Your task to perform on an android device: turn off sleep mode Image 0: 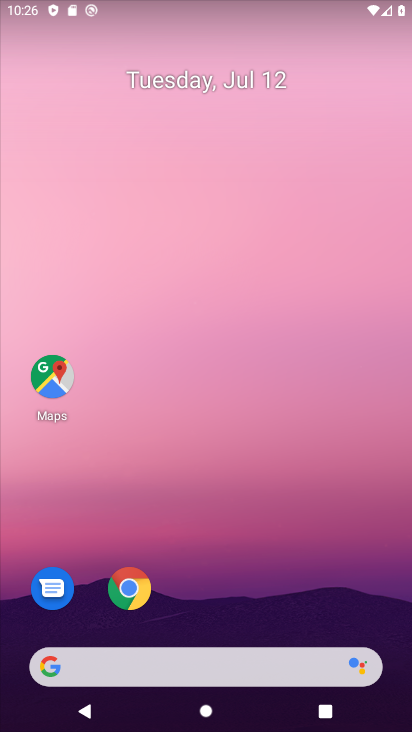
Step 0: drag from (181, 642) to (274, 33)
Your task to perform on an android device: turn off sleep mode Image 1: 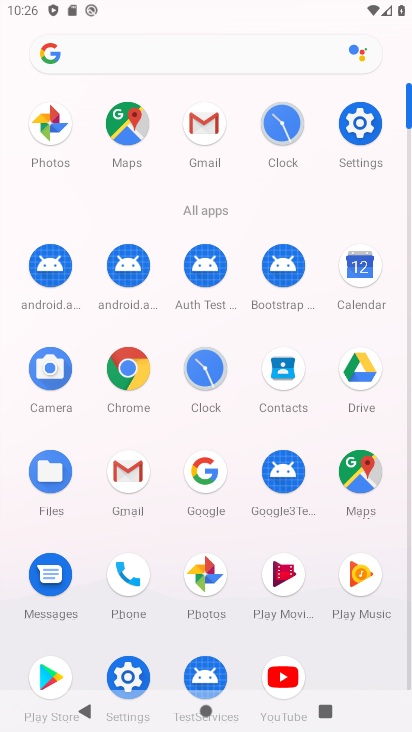
Step 1: click (120, 670)
Your task to perform on an android device: turn off sleep mode Image 2: 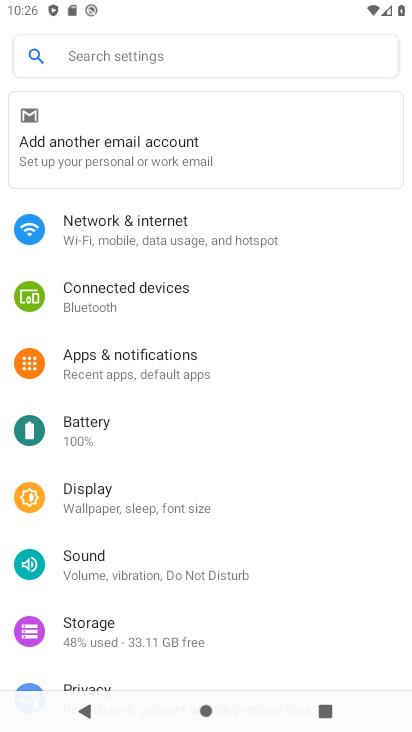
Step 2: click (131, 514)
Your task to perform on an android device: turn off sleep mode Image 3: 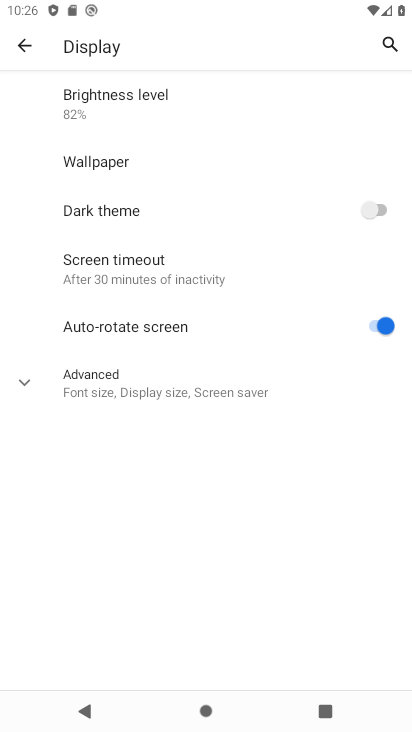
Step 3: click (206, 392)
Your task to perform on an android device: turn off sleep mode Image 4: 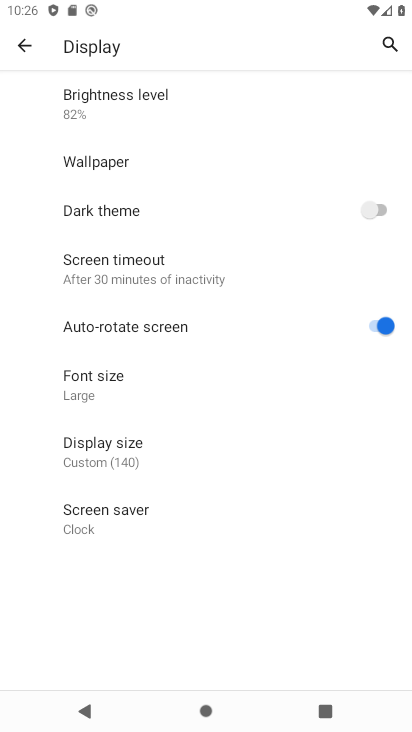
Step 4: task complete